Your task to perform on an android device: turn notification dots on Image 0: 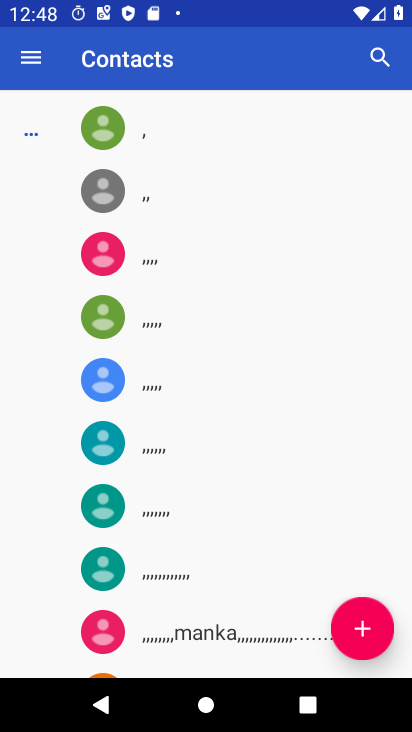
Step 0: press home button
Your task to perform on an android device: turn notification dots on Image 1: 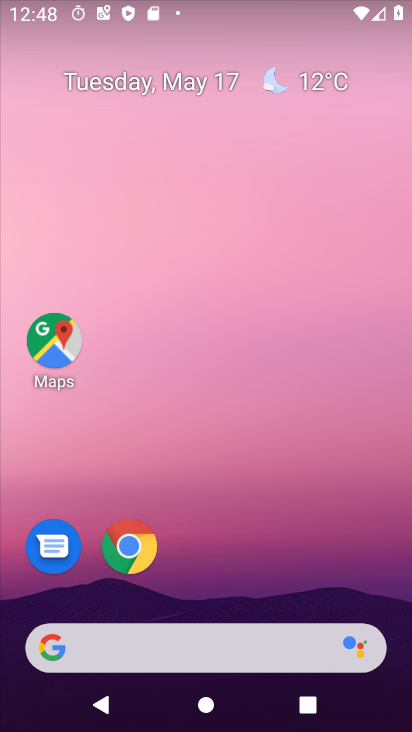
Step 1: drag from (162, 647) to (286, 156)
Your task to perform on an android device: turn notification dots on Image 2: 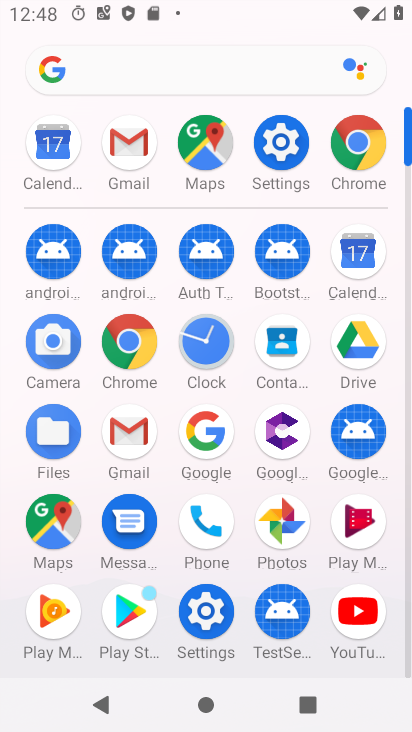
Step 2: click (278, 150)
Your task to perform on an android device: turn notification dots on Image 3: 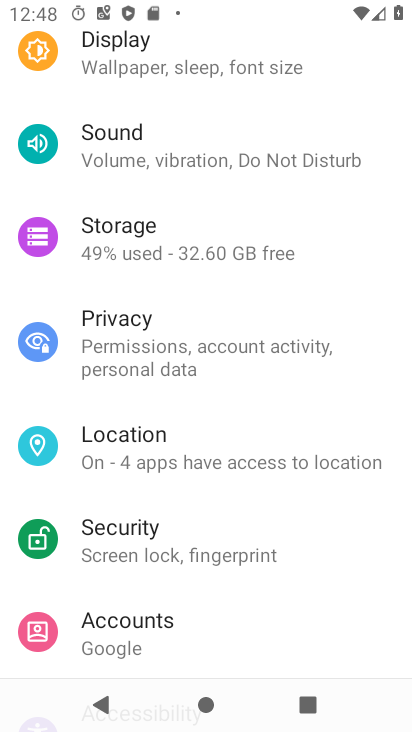
Step 3: drag from (314, 105) to (243, 544)
Your task to perform on an android device: turn notification dots on Image 4: 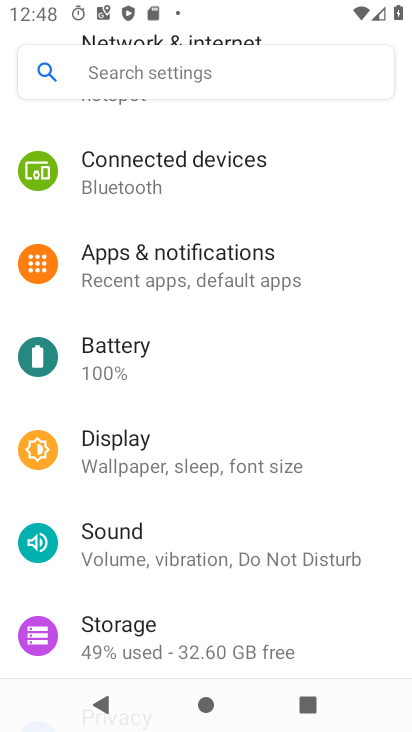
Step 4: click (211, 266)
Your task to perform on an android device: turn notification dots on Image 5: 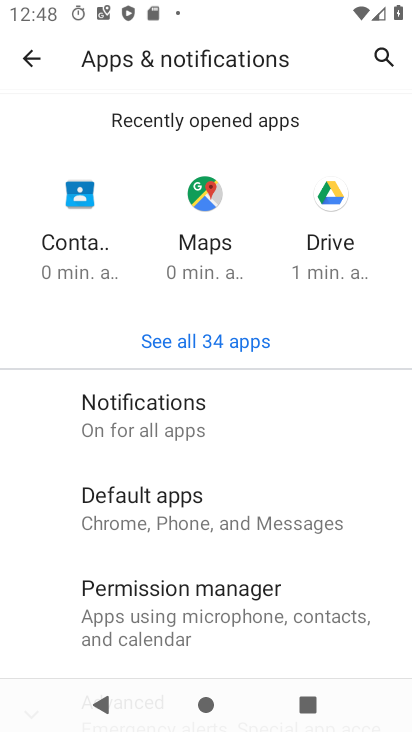
Step 5: click (130, 410)
Your task to perform on an android device: turn notification dots on Image 6: 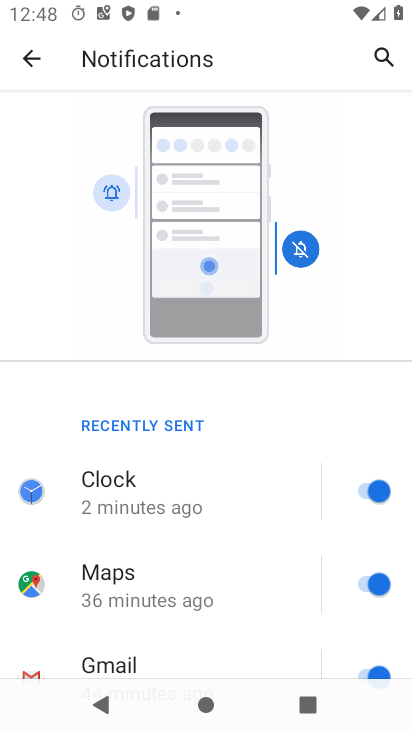
Step 6: drag from (210, 593) to (412, 197)
Your task to perform on an android device: turn notification dots on Image 7: 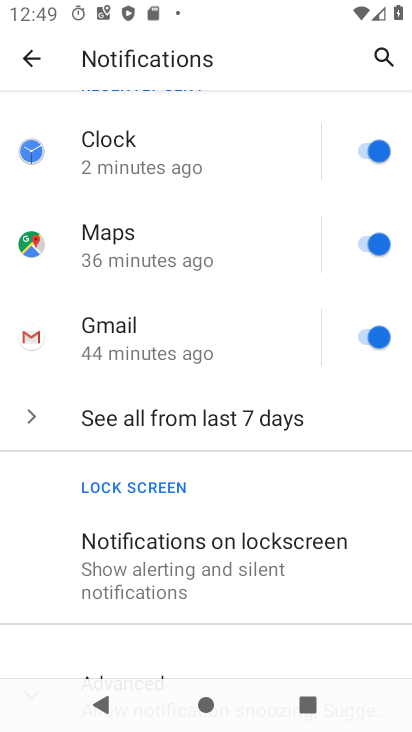
Step 7: drag from (170, 618) to (362, 183)
Your task to perform on an android device: turn notification dots on Image 8: 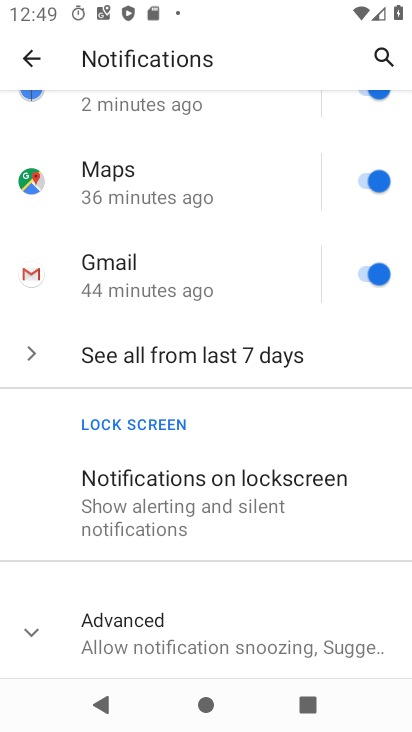
Step 8: click (146, 641)
Your task to perform on an android device: turn notification dots on Image 9: 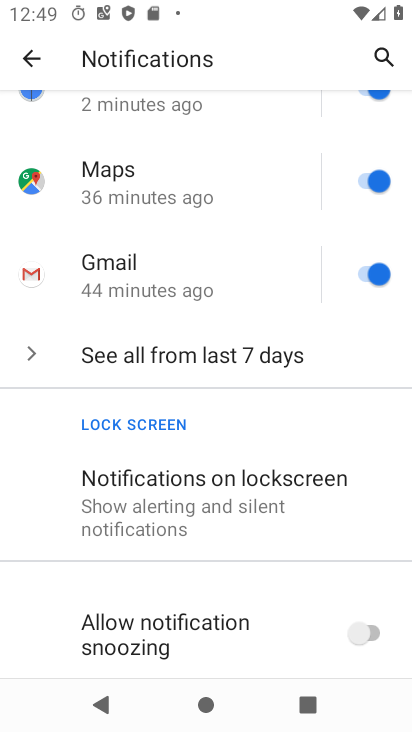
Step 9: task complete